Your task to perform on an android device: turn notification dots on Image 0: 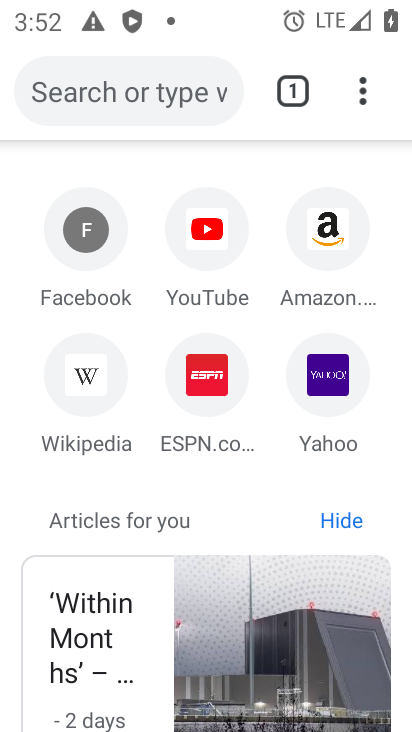
Step 0: press home button
Your task to perform on an android device: turn notification dots on Image 1: 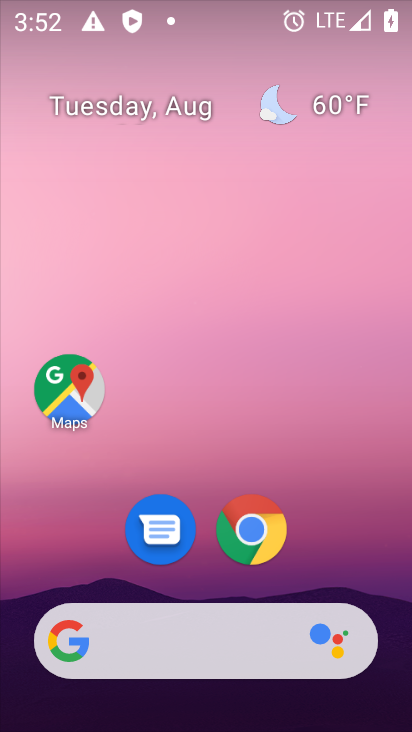
Step 1: drag from (375, 504) to (300, 129)
Your task to perform on an android device: turn notification dots on Image 2: 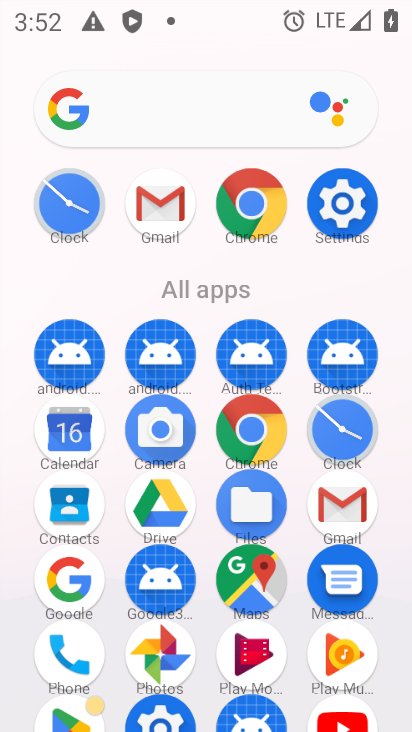
Step 2: click (336, 219)
Your task to perform on an android device: turn notification dots on Image 3: 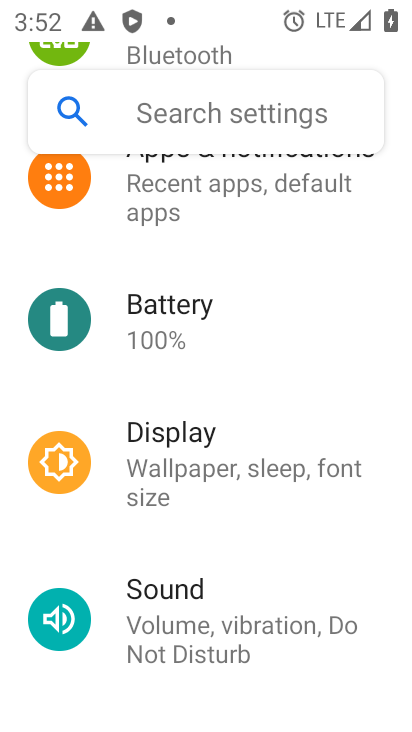
Step 3: click (190, 213)
Your task to perform on an android device: turn notification dots on Image 4: 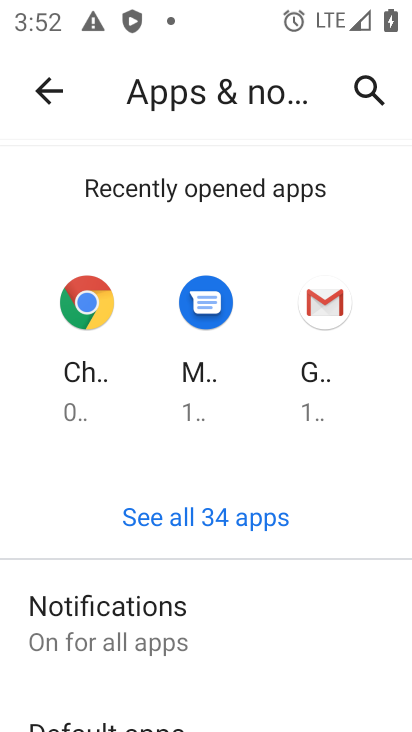
Step 4: click (190, 625)
Your task to perform on an android device: turn notification dots on Image 5: 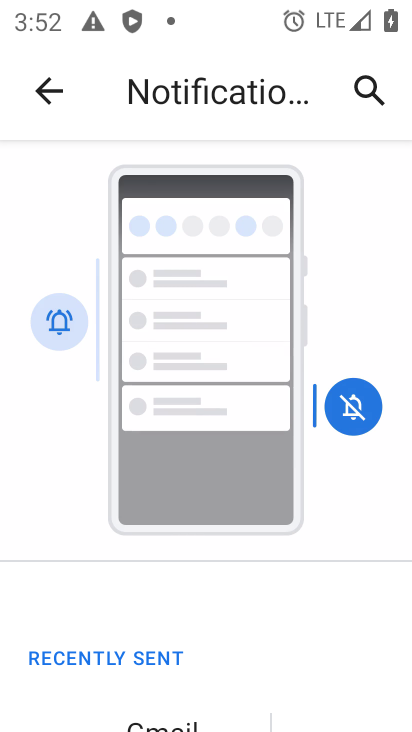
Step 5: drag from (216, 643) to (201, 410)
Your task to perform on an android device: turn notification dots on Image 6: 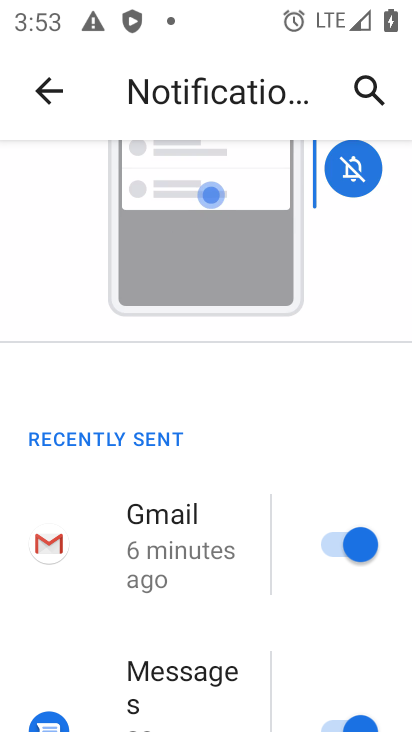
Step 6: drag from (252, 670) to (207, 264)
Your task to perform on an android device: turn notification dots on Image 7: 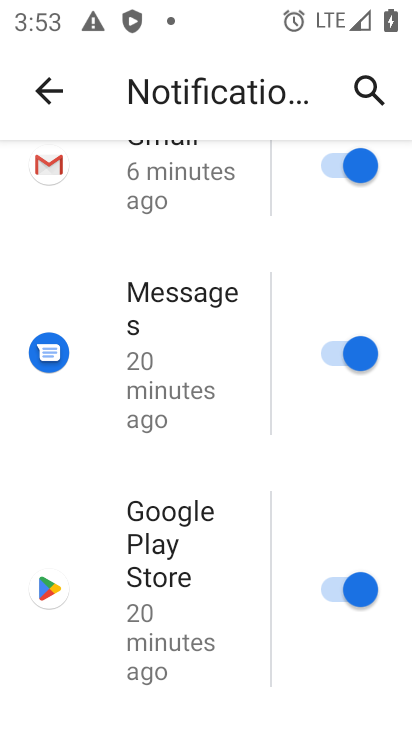
Step 7: drag from (244, 706) to (216, 361)
Your task to perform on an android device: turn notification dots on Image 8: 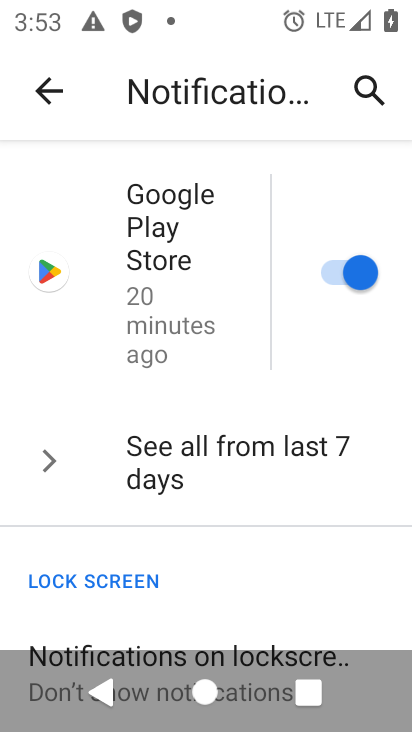
Step 8: drag from (278, 552) to (243, 99)
Your task to perform on an android device: turn notification dots on Image 9: 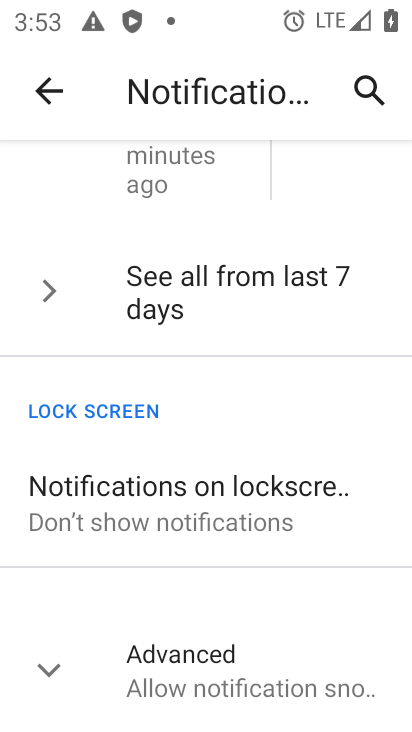
Step 9: click (241, 675)
Your task to perform on an android device: turn notification dots on Image 10: 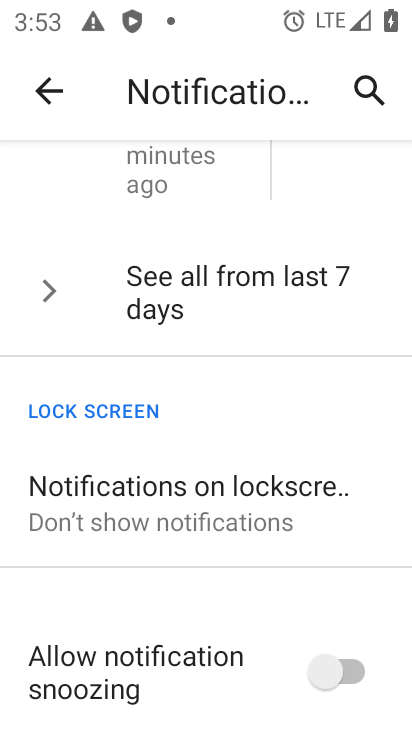
Step 10: task complete